Your task to perform on an android device: turn off location history Image 0: 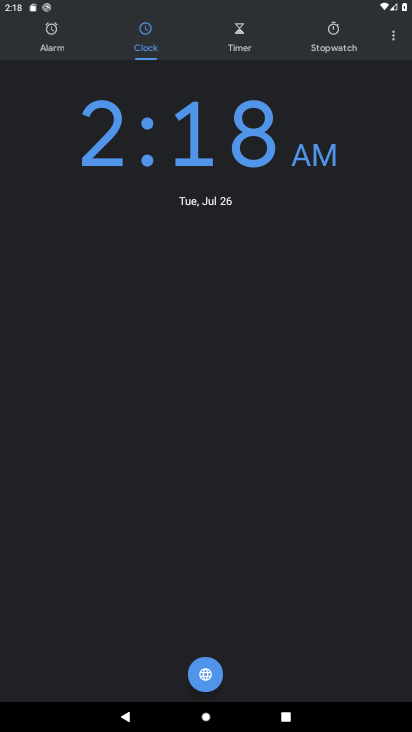
Step 0: press home button
Your task to perform on an android device: turn off location history Image 1: 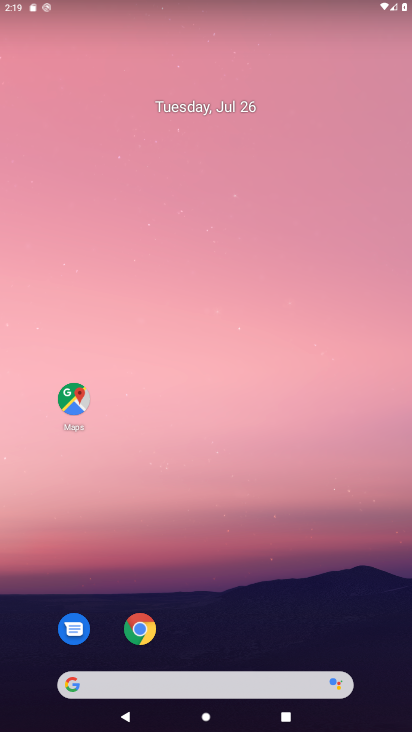
Step 1: drag from (229, 661) to (159, 152)
Your task to perform on an android device: turn off location history Image 2: 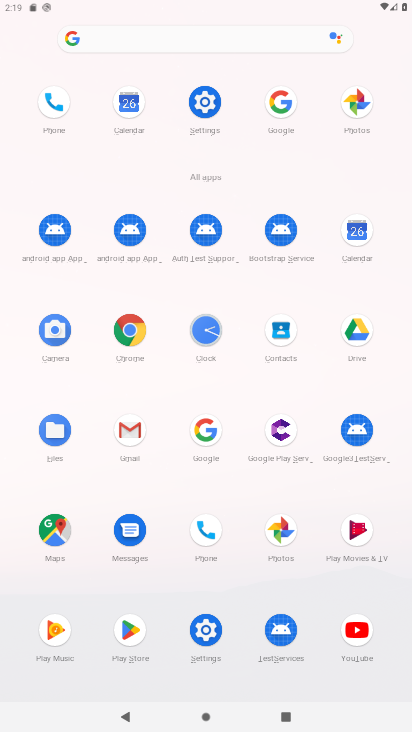
Step 2: click (195, 98)
Your task to perform on an android device: turn off location history Image 3: 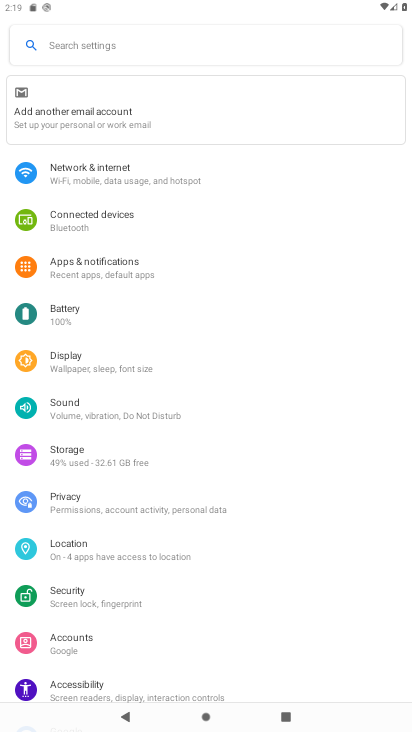
Step 3: click (71, 546)
Your task to perform on an android device: turn off location history Image 4: 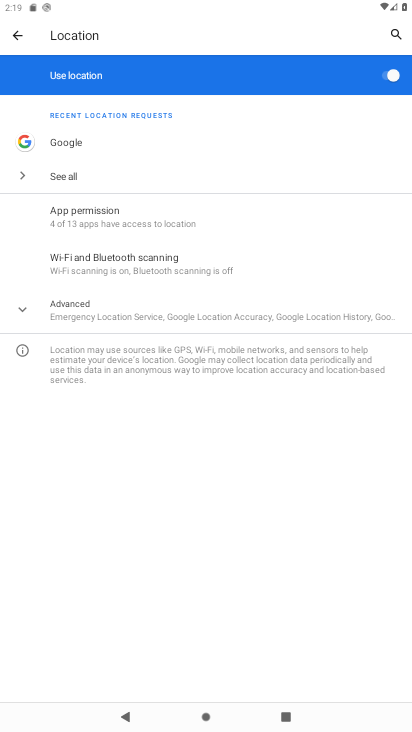
Step 4: click (149, 298)
Your task to perform on an android device: turn off location history Image 5: 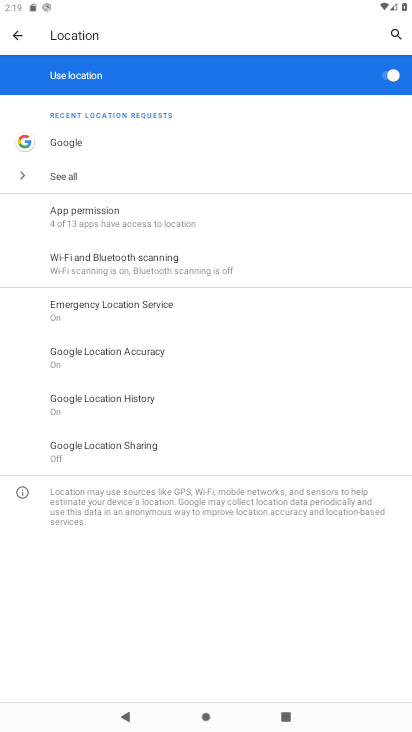
Step 5: click (107, 402)
Your task to perform on an android device: turn off location history Image 6: 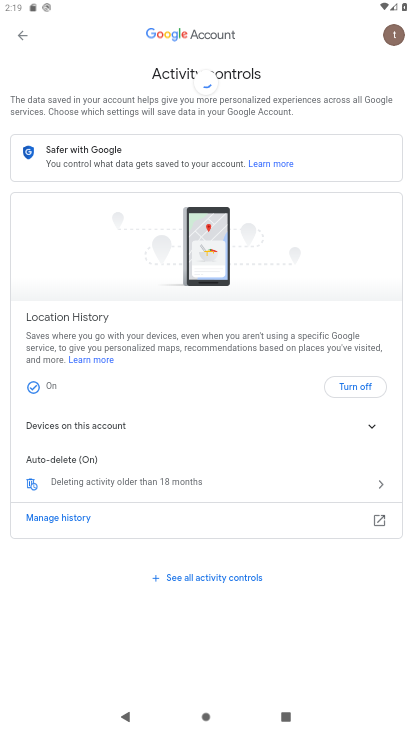
Step 6: click (368, 385)
Your task to perform on an android device: turn off location history Image 7: 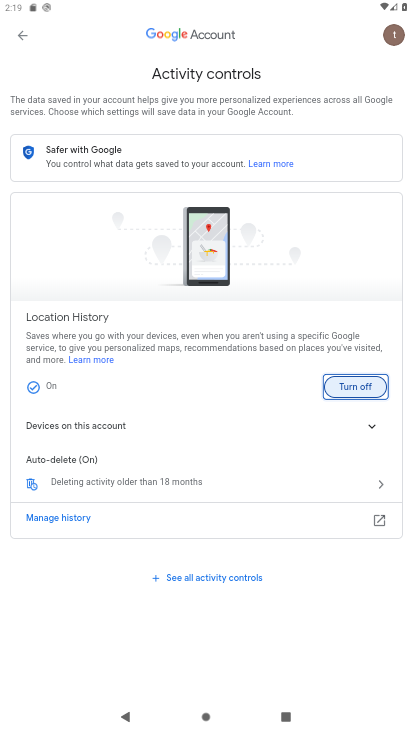
Step 7: click (348, 390)
Your task to perform on an android device: turn off location history Image 8: 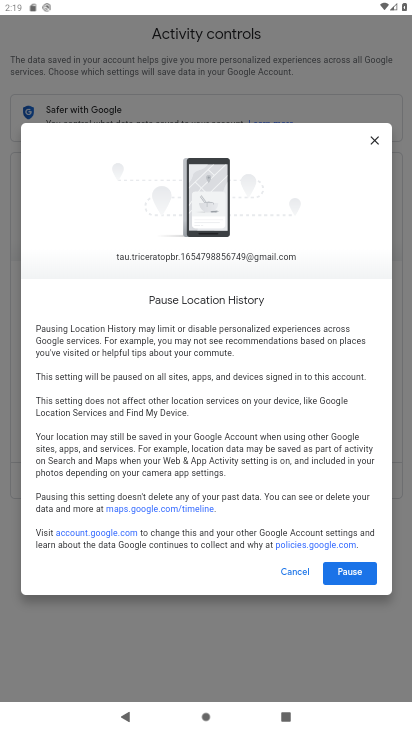
Step 8: click (357, 575)
Your task to perform on an android device: turn off location history Image 9: 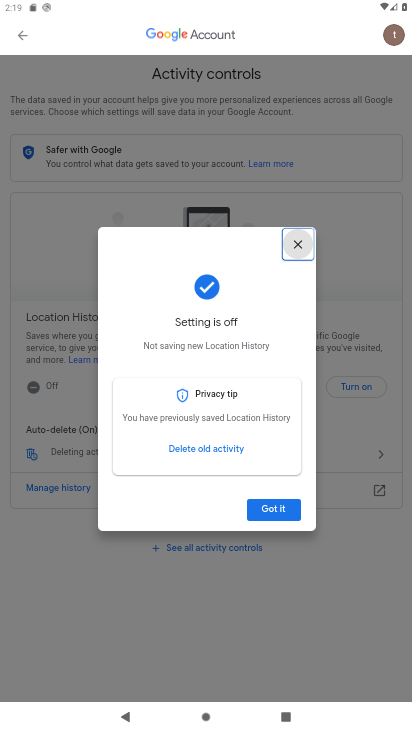
Step 9: click (271, 516)
Your task to perform on an android device: turn off location history Image 10: 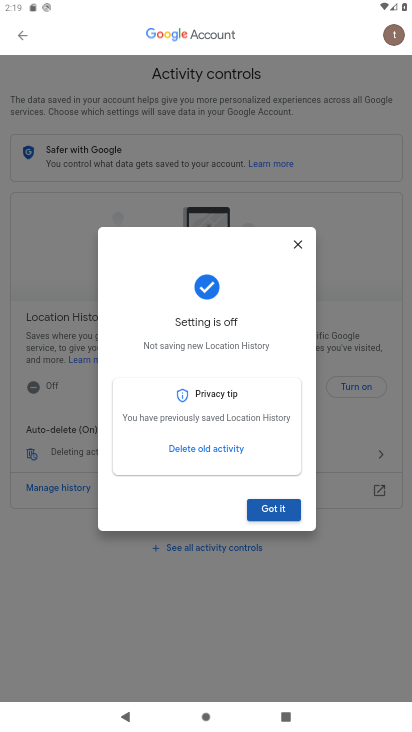
Step 10: task complete